Your task to perform on an android device: set the stopwatch Image 0: 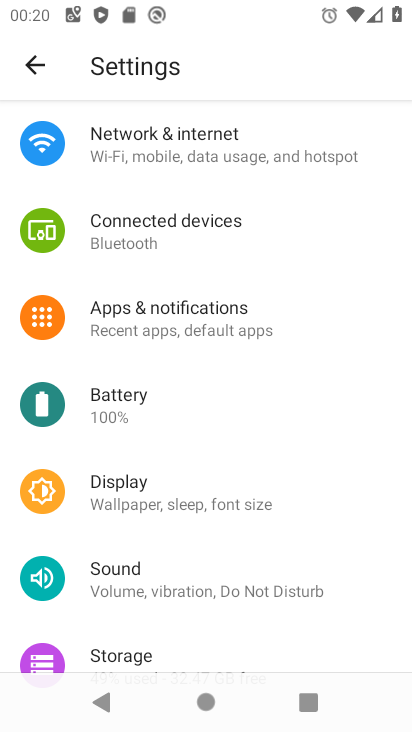
Step 0: press home button
Your task to perform on an android device: set the stopwatch Image 1: 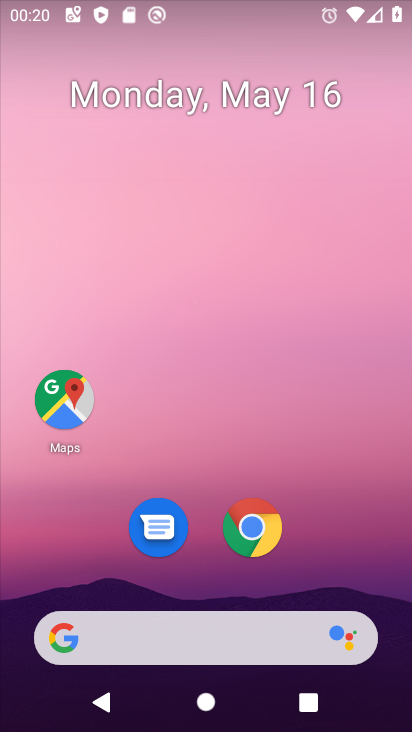
Step 1: drag from (337, 533) to (323, 142)
Your task to perform on an android device: set the stopwatch Image 2: 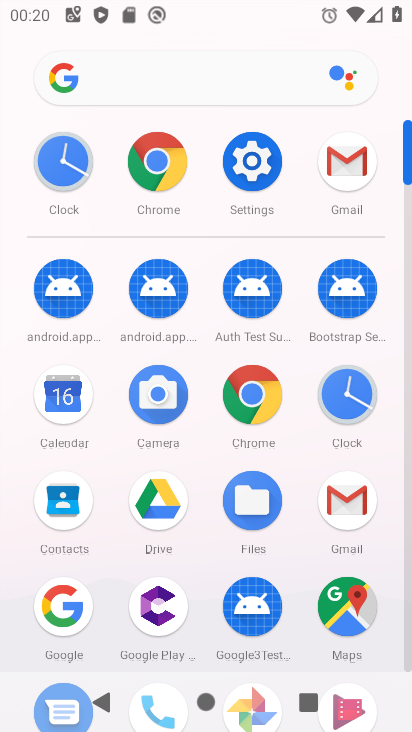
Step 2: click (344, 402)
Your task to perform on an android device: set the stopwatch Image 3: 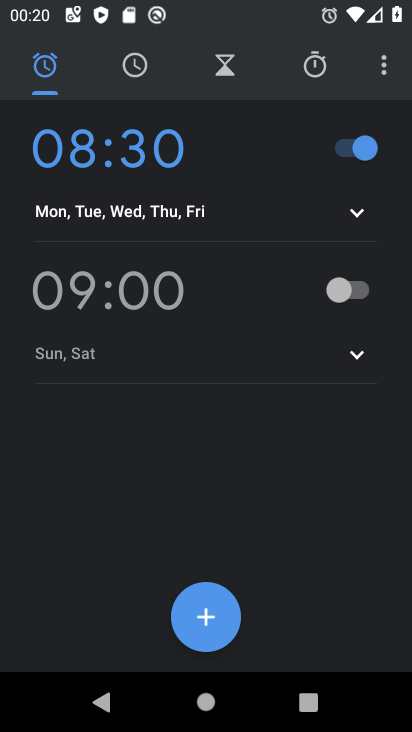
Step 3: click (319, 71)
Your task to perform on an android device: set the stopwatch Image 4: 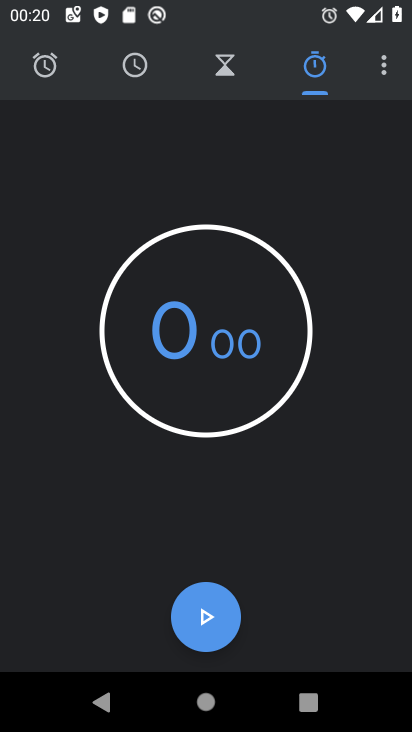
Step 4: task complete